Your task to perform on an android device: Open my contact list Image 0: 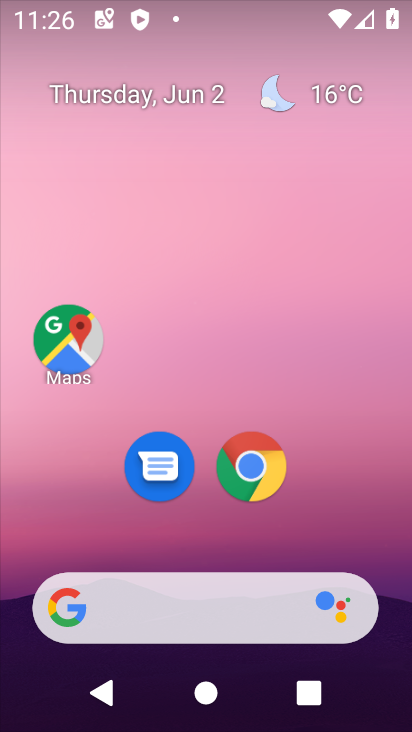
Step 0: drag from (201, 543) to (207, 125)
Your task to perform on an android device: Open my contact list Image 1: 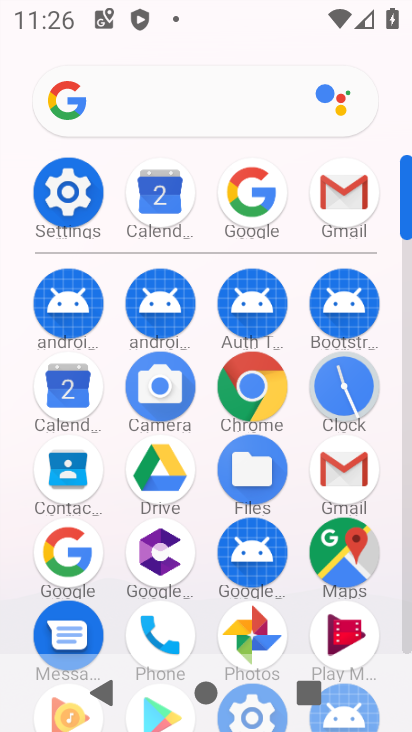
Step 1: click (66, 467)
Your task to perform on an android device: Open my contact list Image 2: 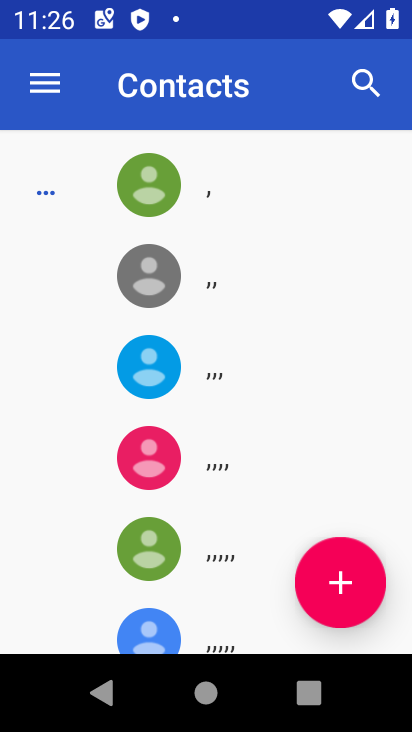
Step 2: task complete